Your task to perform on an android device: change keyboard looks Image 0: 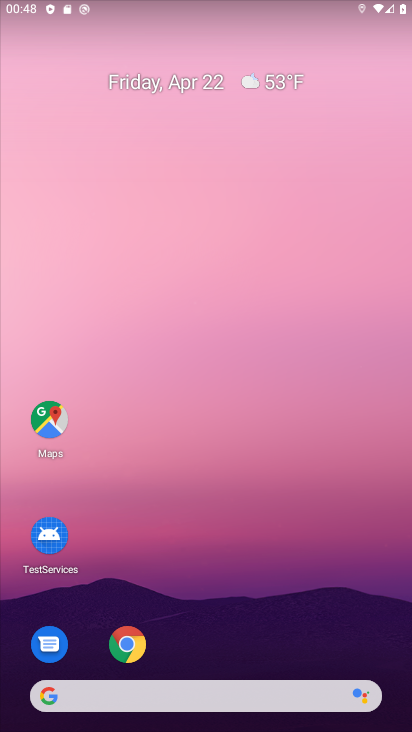
Step 0: drag from (256, 625) to (287, 172)
Your task to perform on an android device: change keyboard looks Image 1: 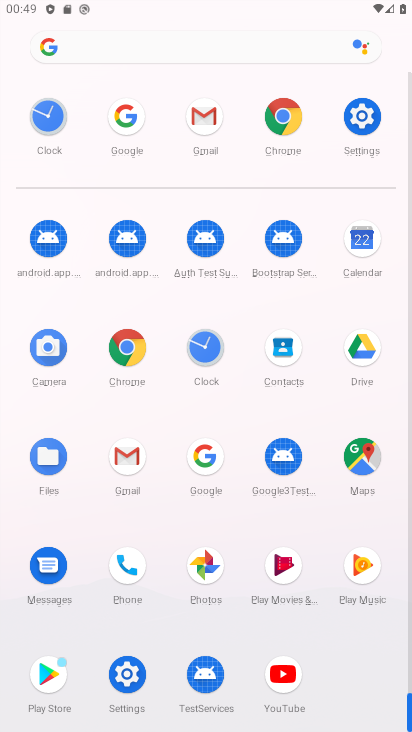
Step 1: click (374, 114)
Your task to perform on an android device: change keyboard looks Image 2: 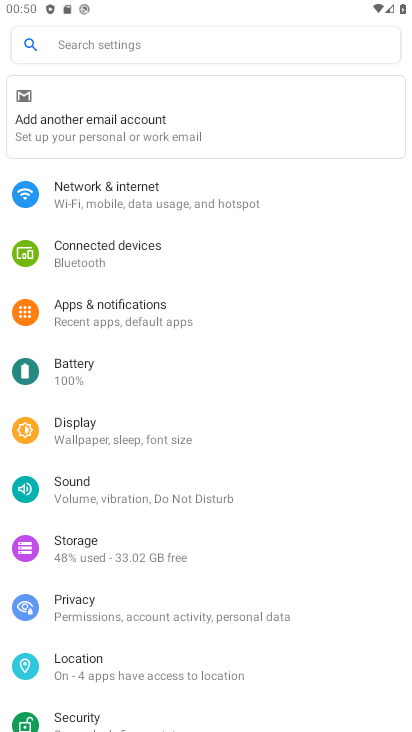
Step 2: drag from (185, 622) to (261, 193)
Your task to perform on an android device: change keyboard looks Image 3: 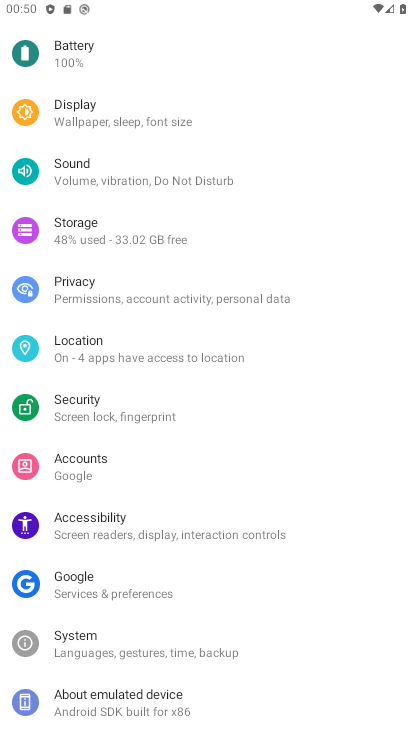
Step 3: drag from (286, 671) to (385, 387)
Your task to perform on an android device: change keyboard looks Image 4: 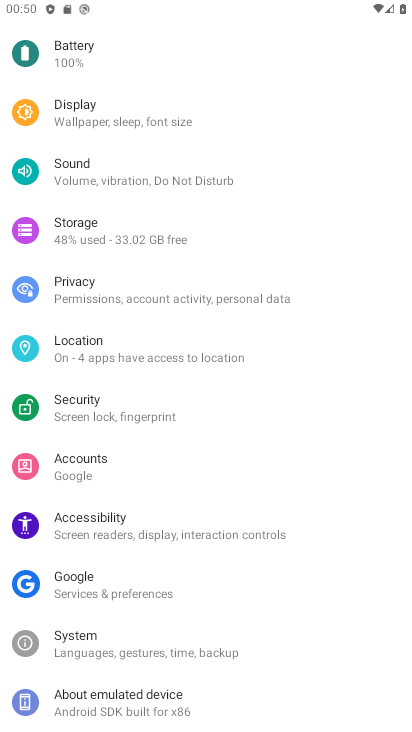
Step 4: click (112, 655)
Your task to perform on an android device: change keyboard looks Image 5: 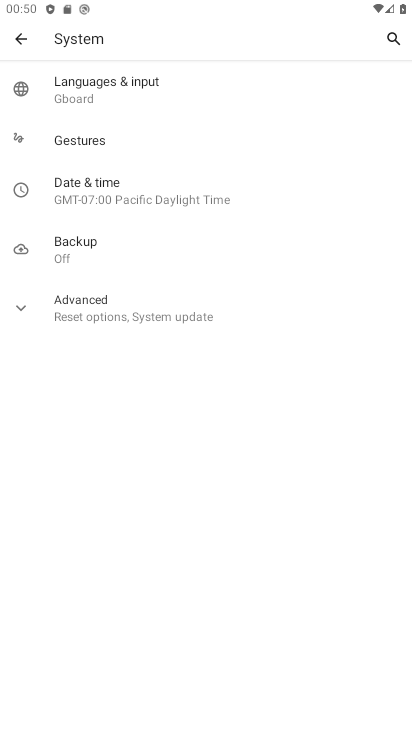
Step 5: click (145, 96)
Your task to perform on an android device: change keyboard looks Image 6: 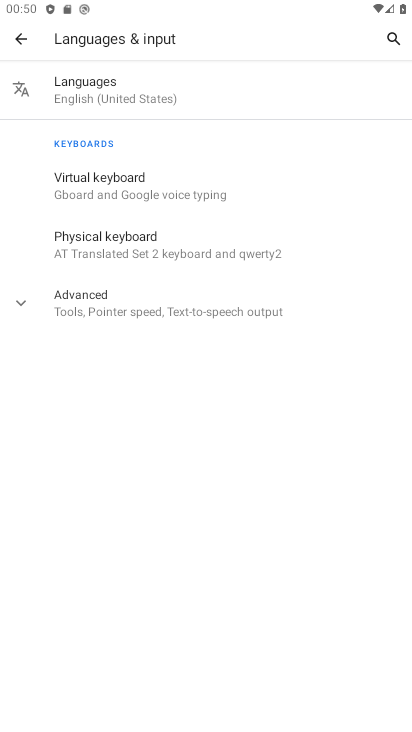
Step 6: click (157, 187)
Your task to perform on an android device: change keyboard looks Image 7: 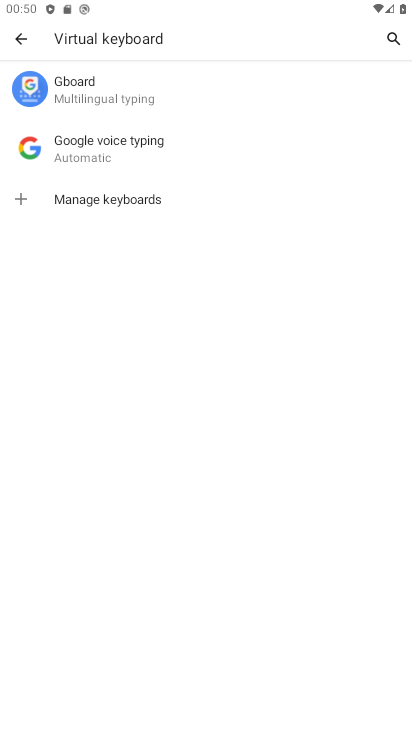
Step 7: click (142, 68)
Your task to perform on an android device: change keyboard looks Image 8: 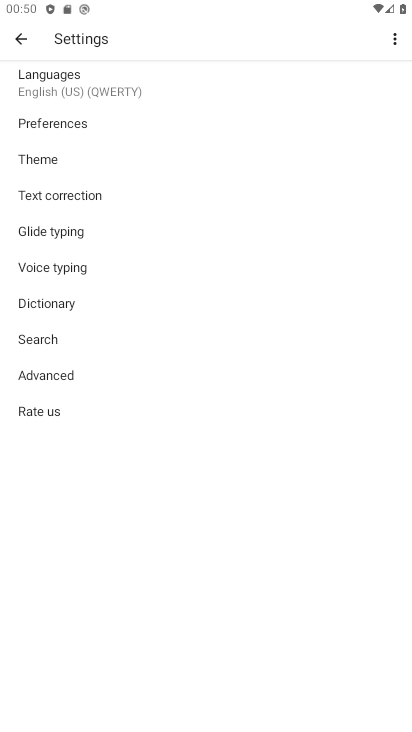
Step 8: click (32, 153)
Your task to perform on an android device: change keyboard looks Image 9: 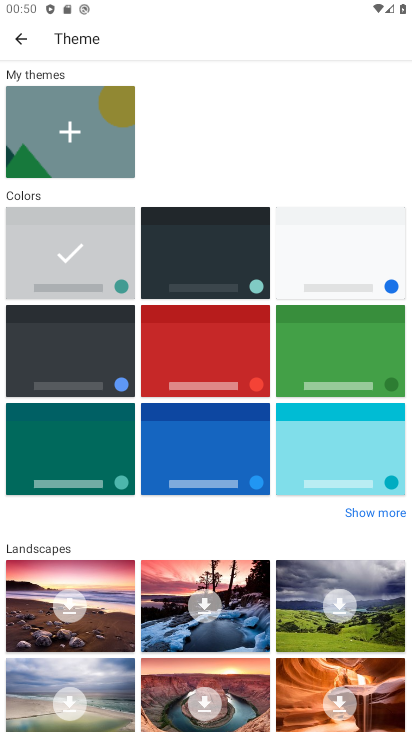
Step 9: click (363, 248)
Your task to perform on an android device: change keyboard looks Image 10: 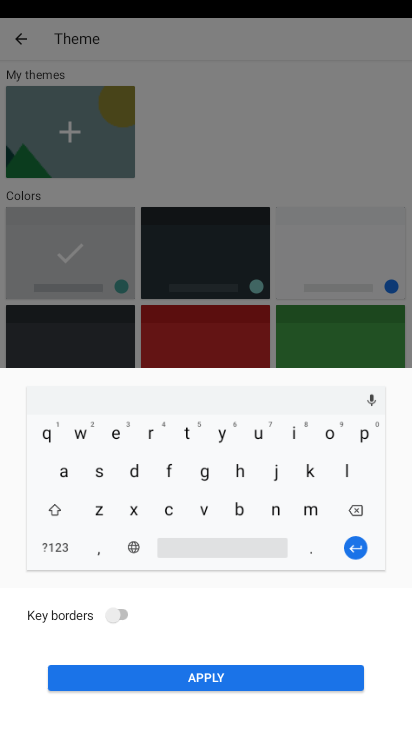
Step 10: click (193, 673)
Your task to perform on an android device: change keyboard looks Image 11: 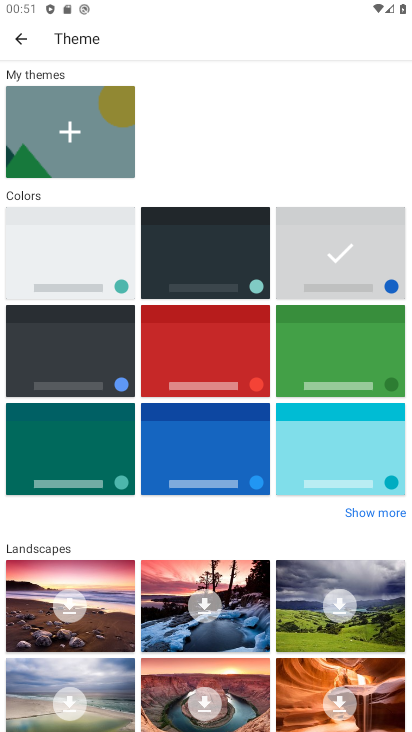
Step 11: task complete